Your task to perform on an android device: open device folders in google photos Image 0: 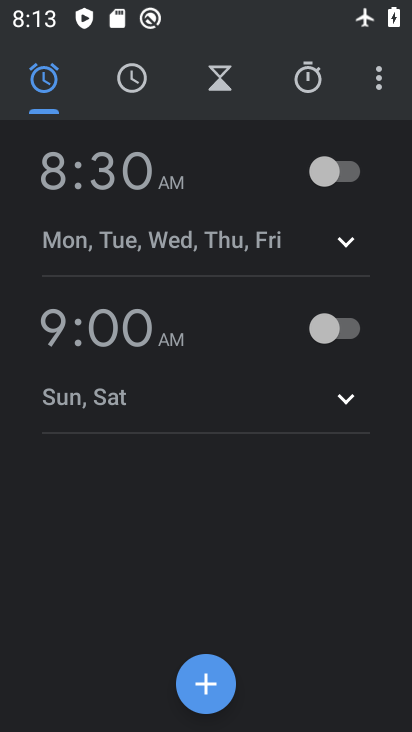
Step 0: press back button
Your task to perform on an android device: open device folders in google photos Image 1: 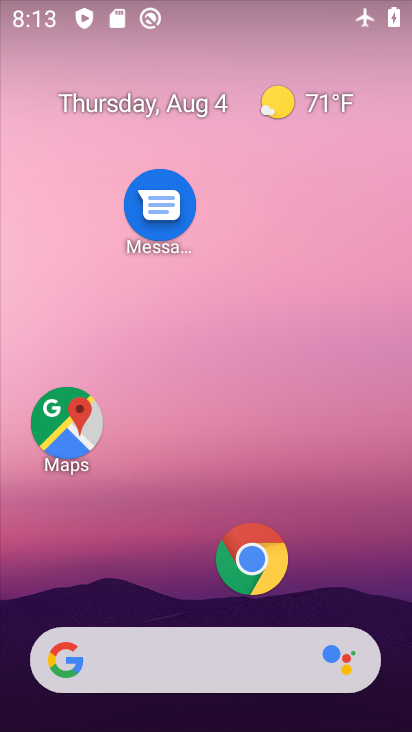
Step 1: drag from (203, 593) to (198, 18)
Your task to perform on an android device: open device folders in google photos Image 2: 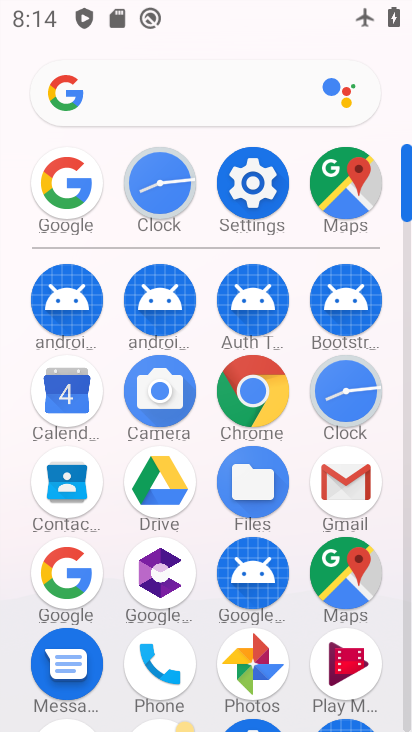
Step 2: click (256, 670)
Your task to perform on an android device: open device folders in google photos Image 3: 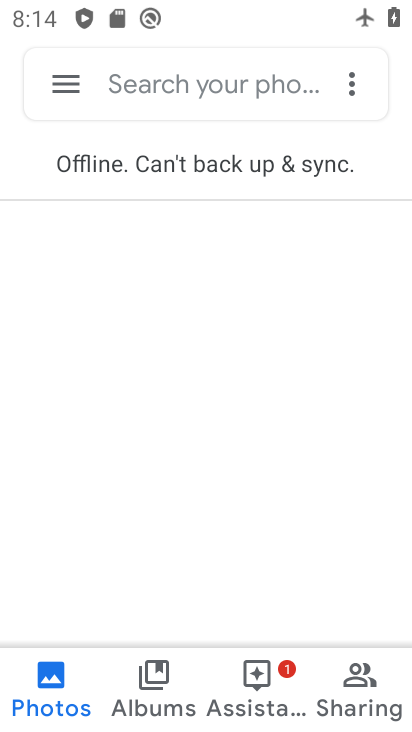
Step 3: click (57, 98)
Your task to perform on an android device: open device folders in google photos Image 4: 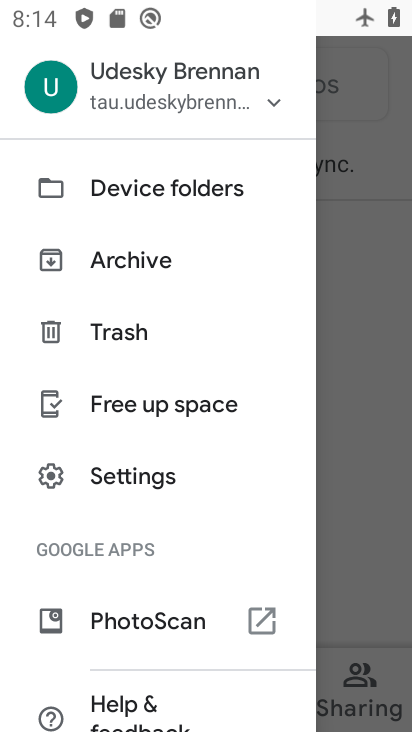
Step 4: click (105, 207)
Your task to perform on an android device: open device folders in google photos Image 5: 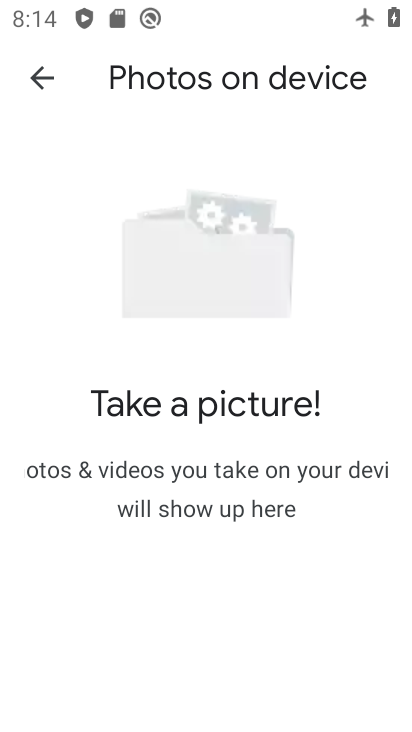
Step 5: task complete